Your task to perform on an android device: turn off notifications settings in the gmail app Image 0: 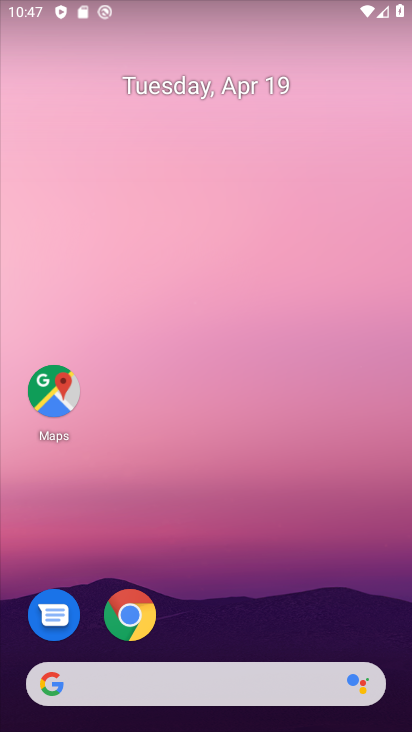
Step 0: drag from (217, 543) to (217, 23)
Your task to perform on an android device: turn off notifications settings in the gmail app Image 1: 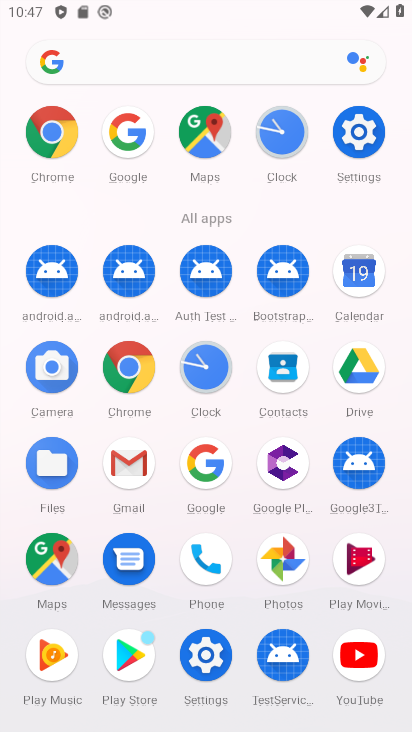
Step 1: click (115, 461)
Your task to perform on an android device: turn off notifications settings in the gmail app Image 2: 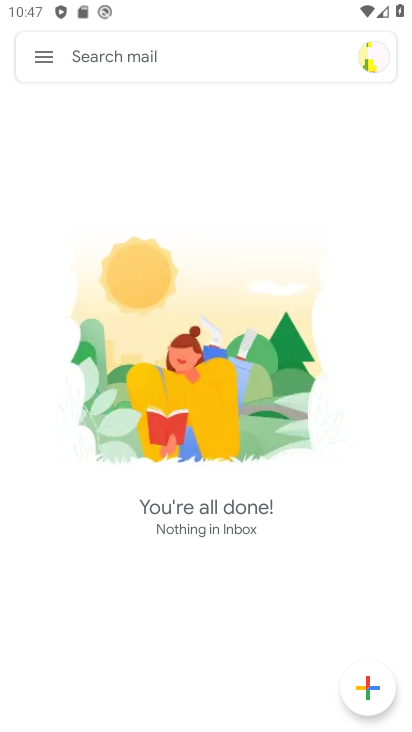
Step 2: click (46, 58)
Your task to perform on an android device: turn off notifications settings in the gmail app Image 3: 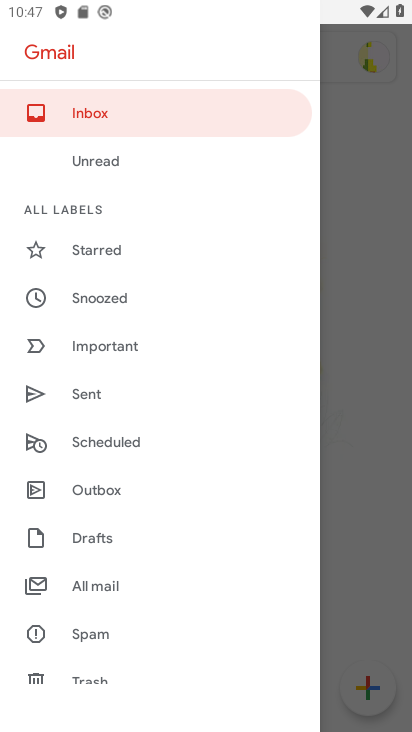
Step 3: drag from (124, 625) to (140, 310)
Your task to perform on an android device: turn off notifications settings in the gmail app Image 4: 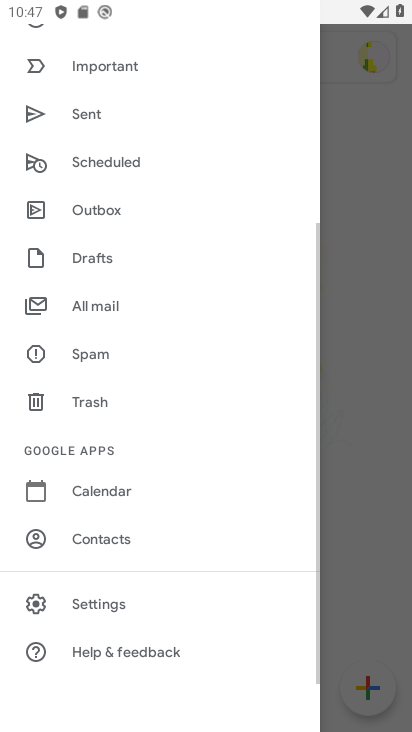
Step 4: click (93, 599)
Your task to perform on an android device: turn off notifications settings in the gmail app Image 5: 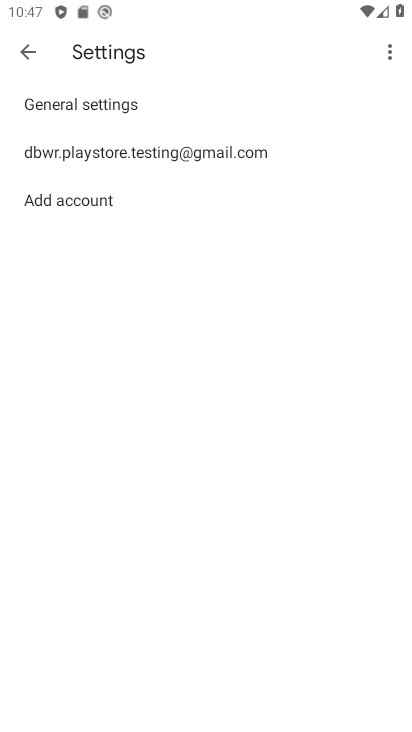
Step 5: click (262, 154)
Your task to perform on an android device: turn off notifications settings in the gmail app Image 6: 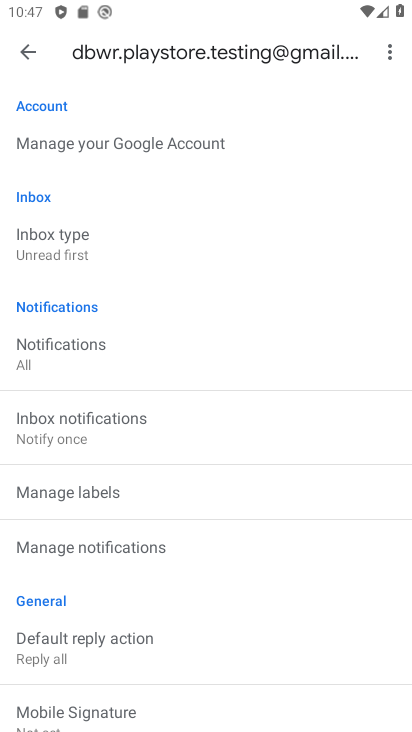
Step 6: click (153, 549)
Your task to perform on an android device: turn off notifications settings in the gmail app Image 7: 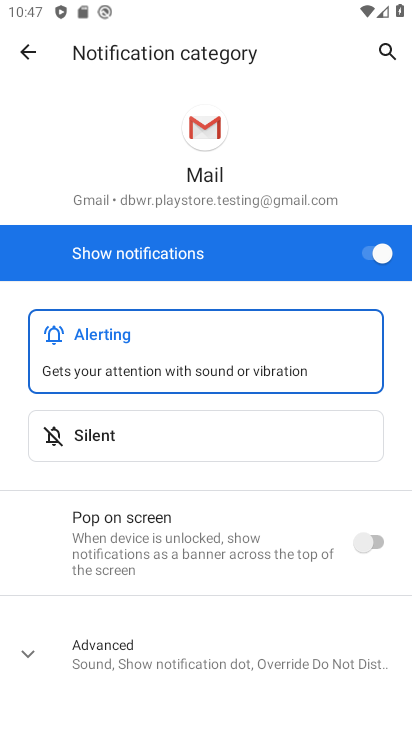
Step 7: click (364, 253)
Your task to perform on an android device: turn off notifications settings in the gmail app Image 8: 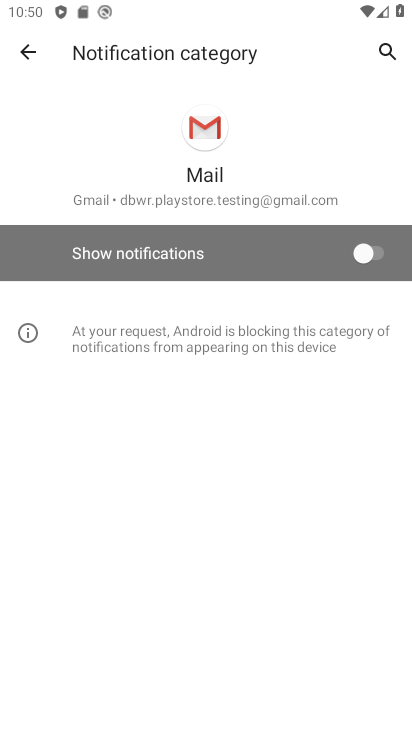
Step 8: task complete